Your task to perform on an android device: Check the settings for the Amazon Prime Video app Image 0: 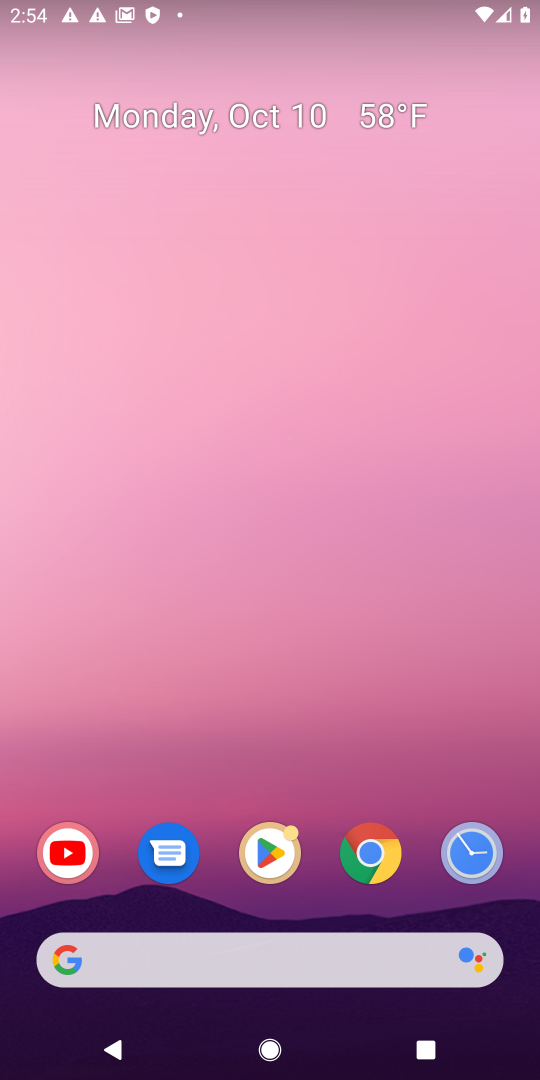
Step 0: drag from (177, 904) to (347, 97)
Your task to perform on an android device: Check the settings for the Amazon Prime Video app Image 1: 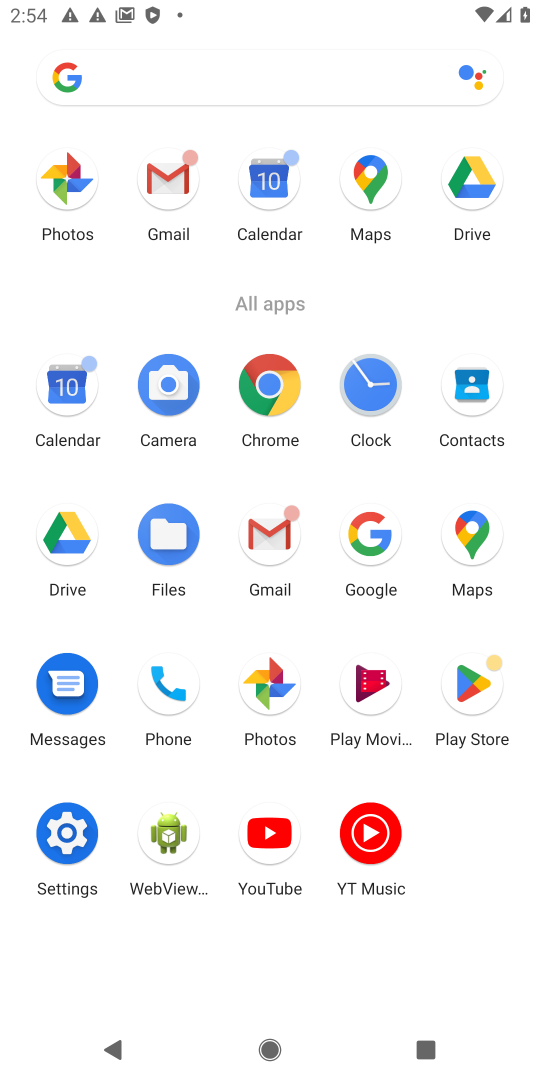
Step 1: task complete